Your task to perform on an android device: Open battery settings Image 0: 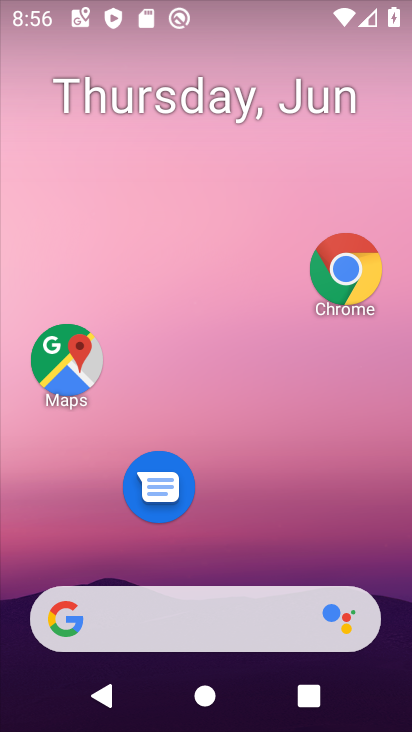
Step 0: click (298, 71)
Your task to perform on an android device: Open battery settings Image 1: 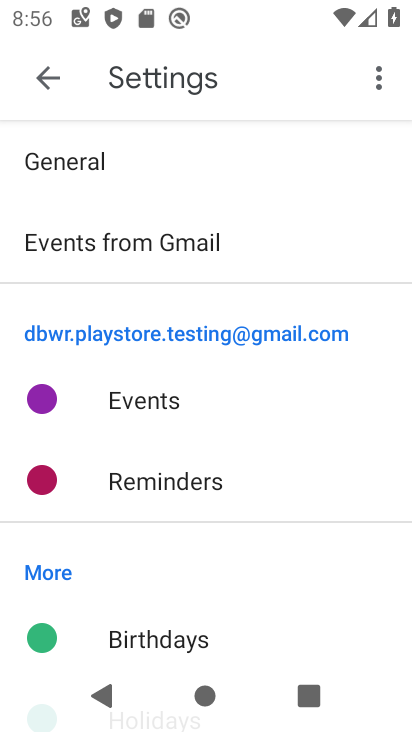
Step 1: press home button
Your task to perform on an android device: Open battery settings Image 2: 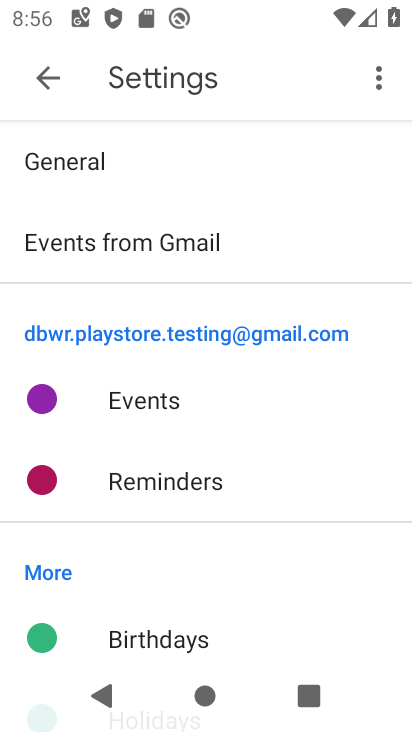
Step 2: press home button
Your task to perform on an android device: Open battery settings Image 3: 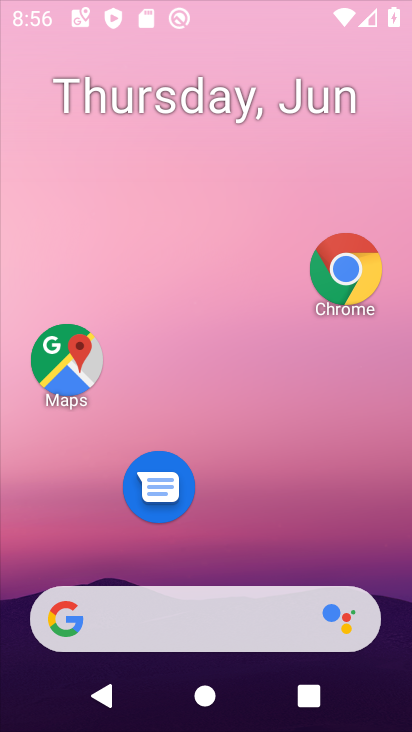
Step 3: drag from (230, 554) to (265, 255)
Your task to perform on an android device: Open battery settings Image 4: 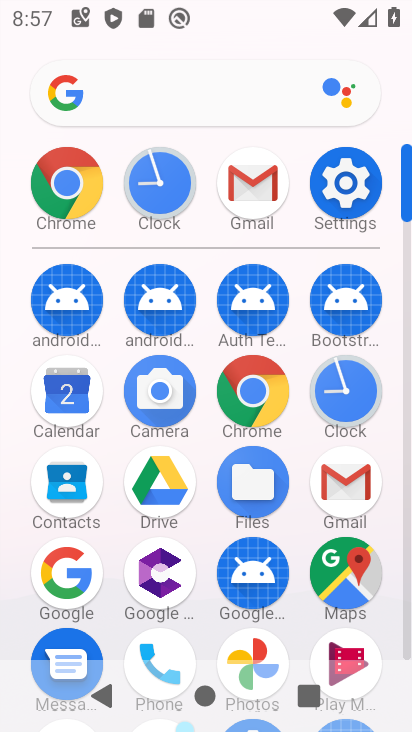
Step 4: click (331, 188)
Your task to perform on an android device: Open battery settings Image 5: 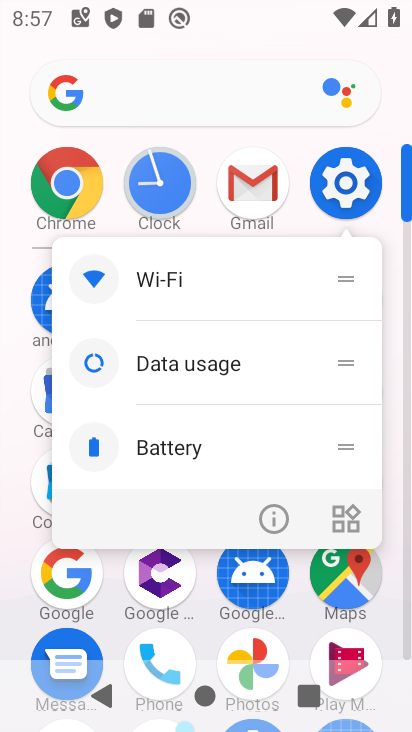
Step 5: click (276, 515)
Your task to perform on an android device: Open battery settings Image 6: 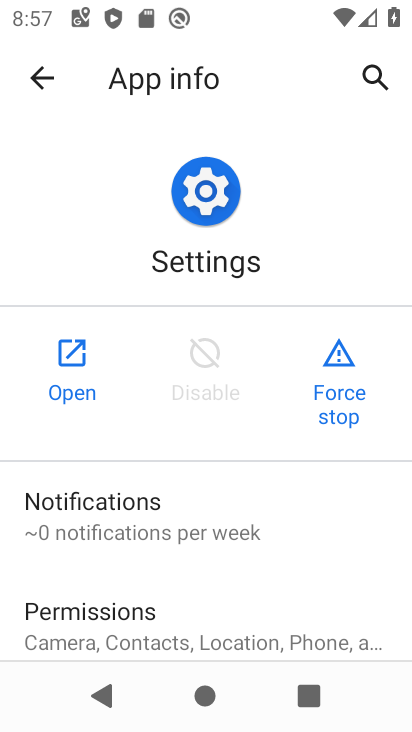
Step 6: click (57, 363)
Your task to perform on an android device: Open battery settings Image 7: 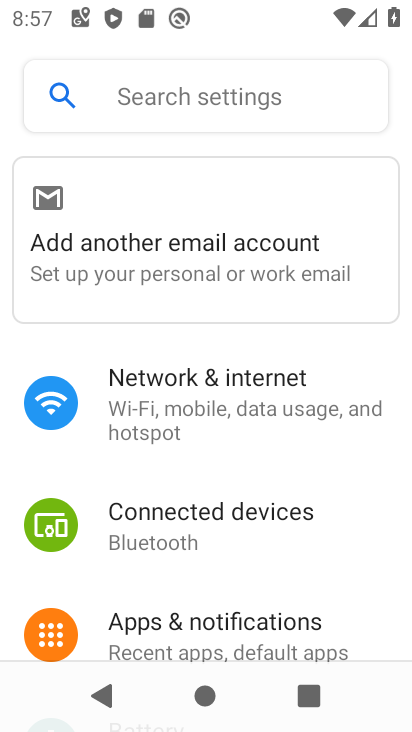
Step 7: drag from (237, 570) to (258, 320)
Your task to perform on an android device: Open battery settings Image 8: 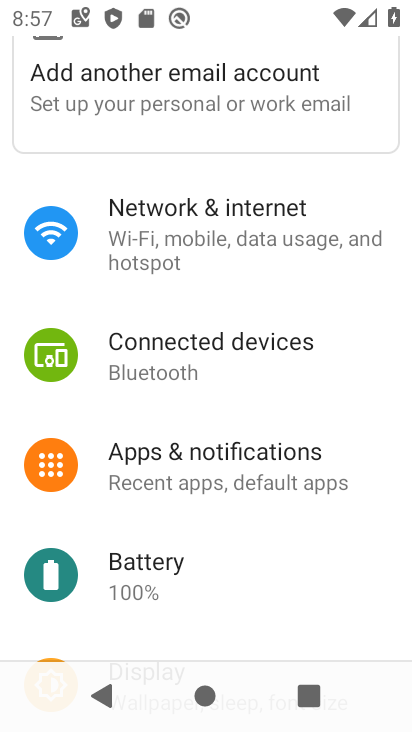
Step 8: drag from (244, 495) to (302, 194)
Your task to perform on an android device: Open battery settings Image 9: 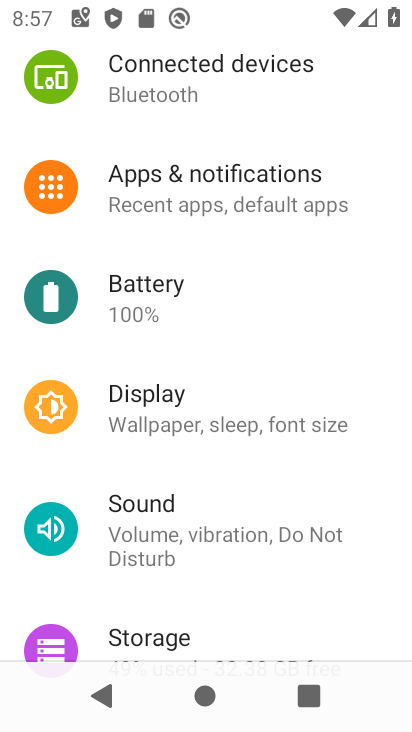
Step 9: click (200, 299)
Your task to perform on an android device: Open battery settings Image 10: 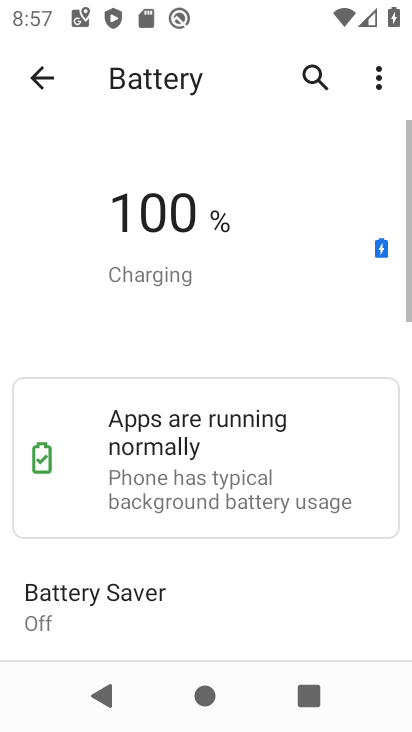
Step 10: task complete